Your task to perform on an android device: Go to wifi settings Image 0: 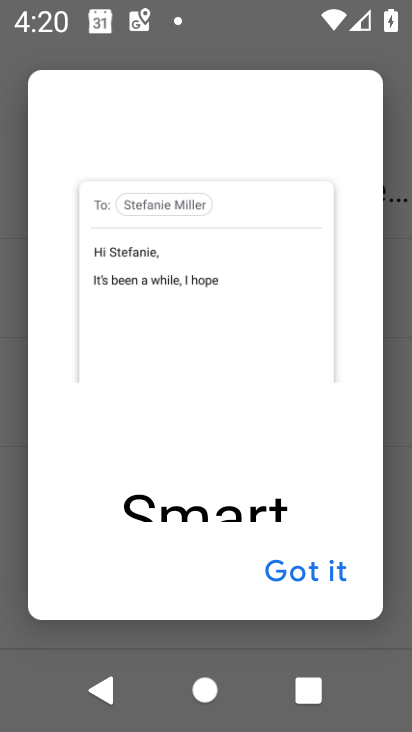
Step 0: press home button
Your task to perform on an android device: Go to wifi settings Image 1: 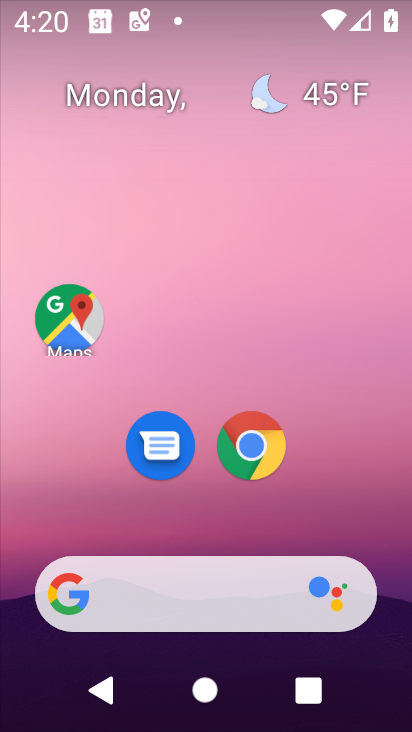
Step 1: drag from (284, 533) to (306, 77)
Your task to perform on an android device: Go to wifi settings Image 2: 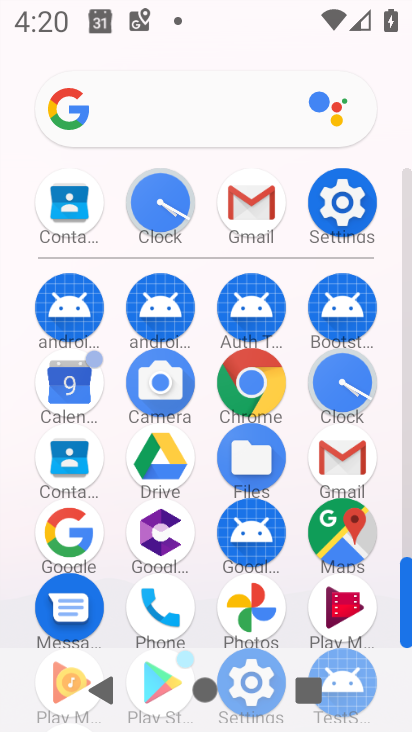
Step 2: click (343, 204)
Your task to perform on an android device: Go to wifi settings Image 3: 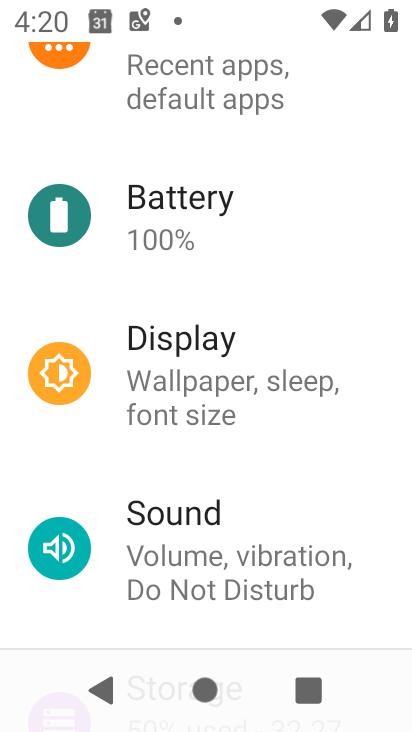
Step 3: drag from (272, 215) to (316, 616)
Your task to perform on an android device: Go to wifi settings Image 4: 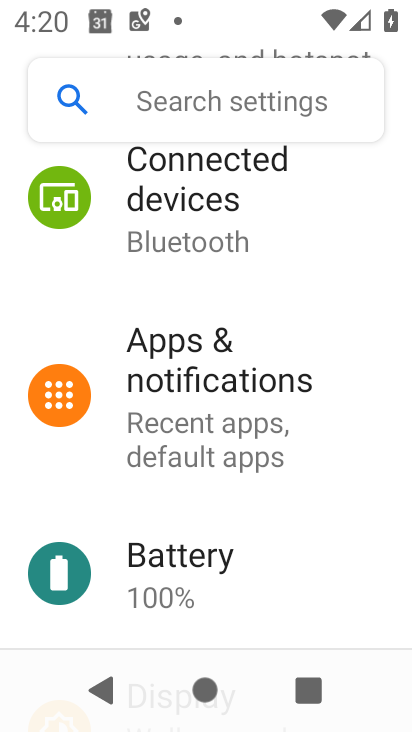
Step 4: drag from (232, 255) to (274, 706)
Your task to perform on an android device: Go to wifi settings Image 5: 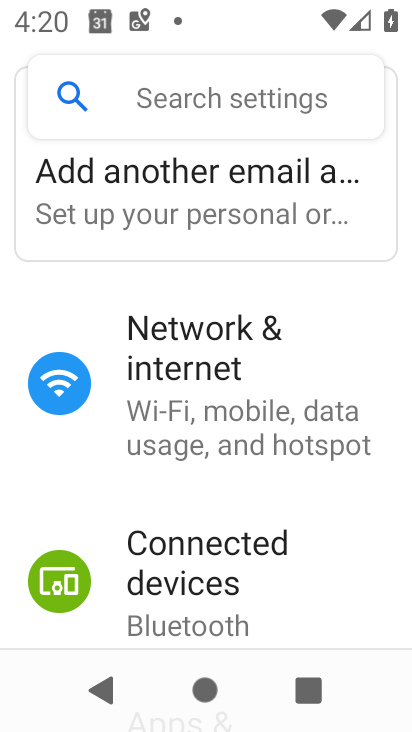
Step 5: click (191, 351)
Your task to perform on an android device: Go to wifi settings Image 6: 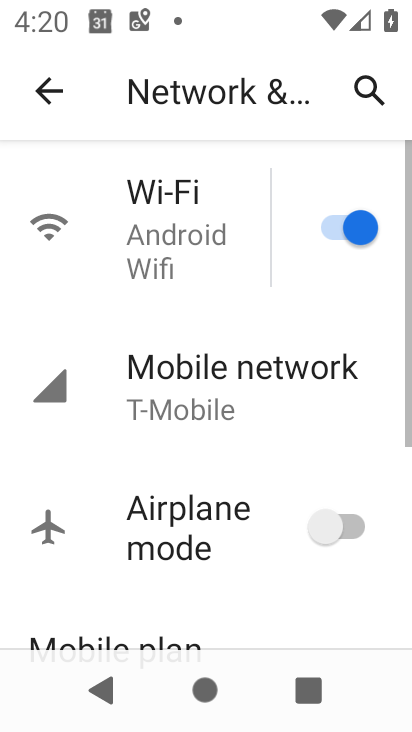
Step 6: click (146, 260)
Your task to perform on an android device: Go to wifi settings Image 7: 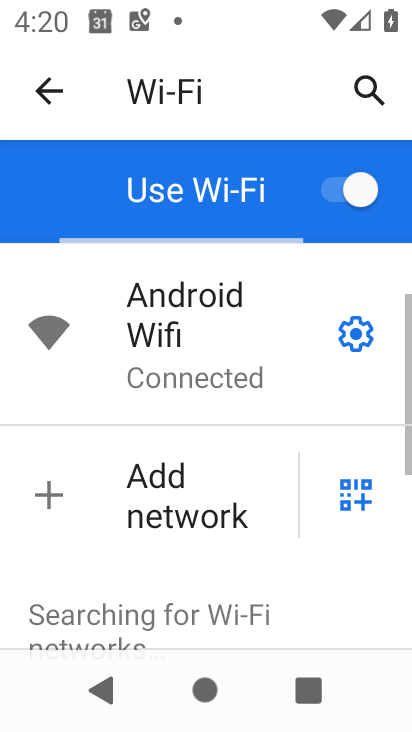
Step 7: task complete